Your task to perform on an android device: Go to network settings Image 0: 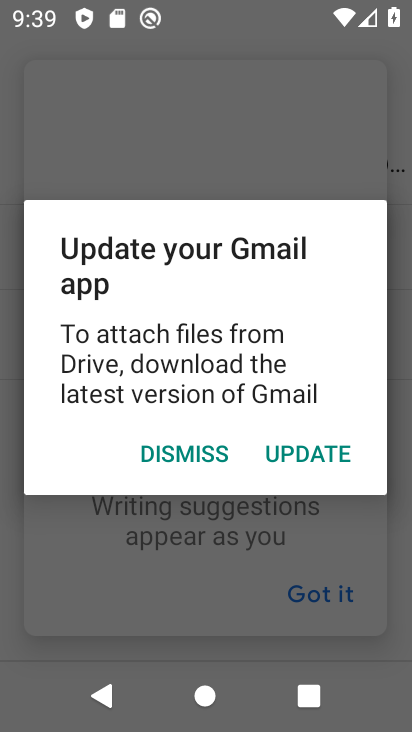
Step 0: press home button
Your task to perform on an android device: Go to network settings Image 1: 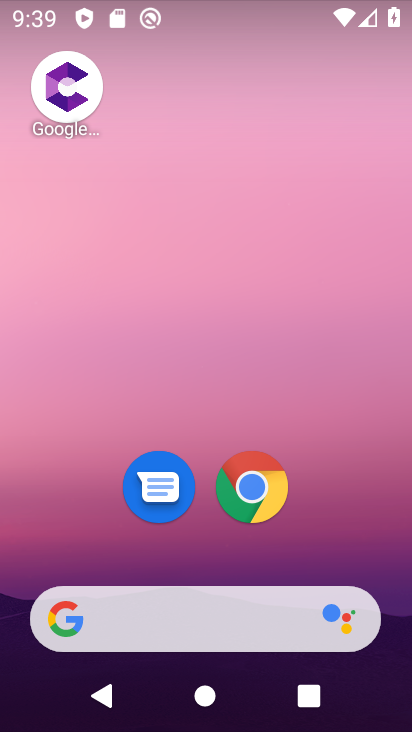
Step 1: drag from (168, 349) to (169, 116)
Your task to perform on an android device: Go to network settings Image 2: 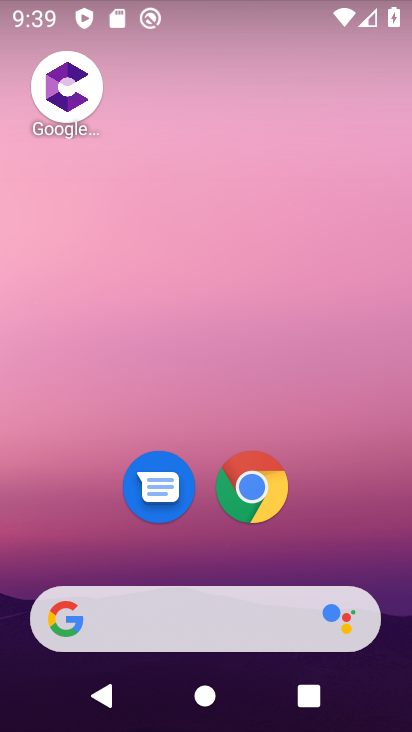
Step 2: drag from (200, 551) to (234, 92)
Your task to perform on an android device: Go to network settings Image 3: 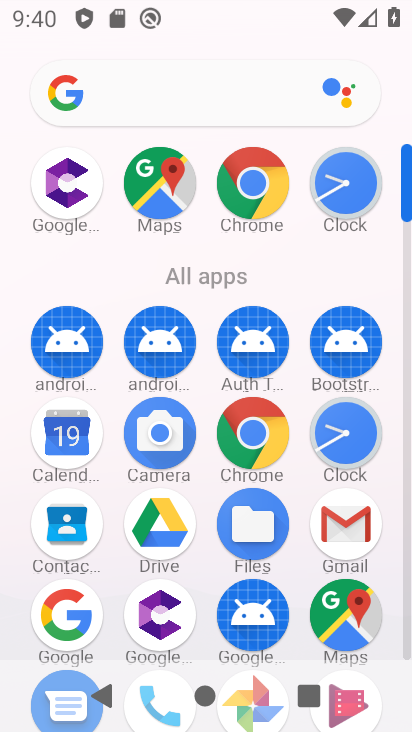
Step 3: drag from (203, 576) to (287, 153)
Your task to perform on an android device: Go to network settings Image 4: 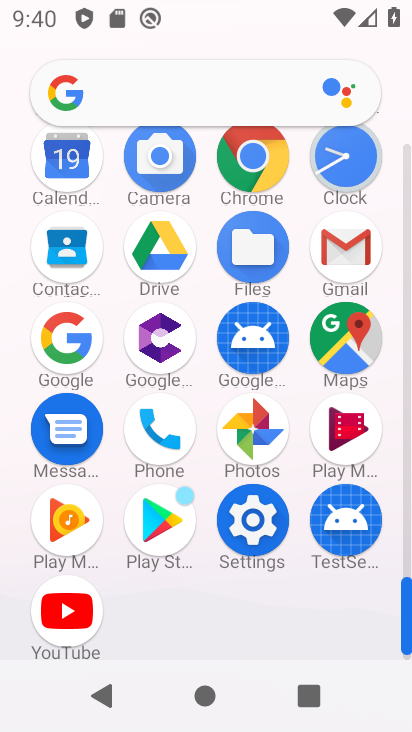
Step 4: click (266, 520)
Your task to perform on an android device: Go to network settings Image 5: 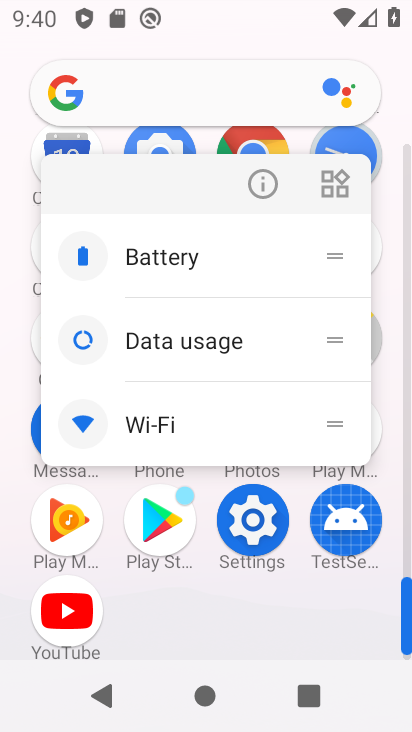
Step 5: click (266, 520)
Your task to perform on an android device: Go to network settings Image 6: 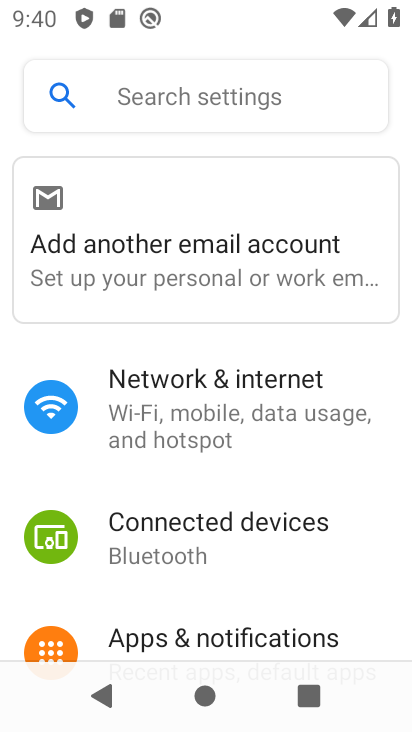
Step 6: click (245, 412)
Your task to perform on an android device: Go to network settings Image 7: 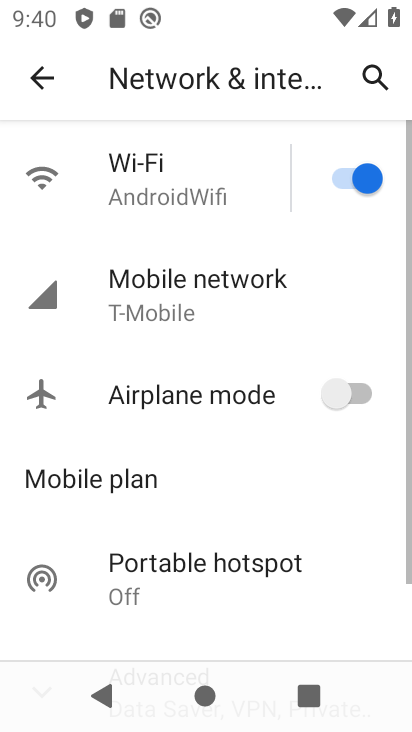
Step 7: task complete